Your task to perform on an android device: Go to ESPN.com Image 0: 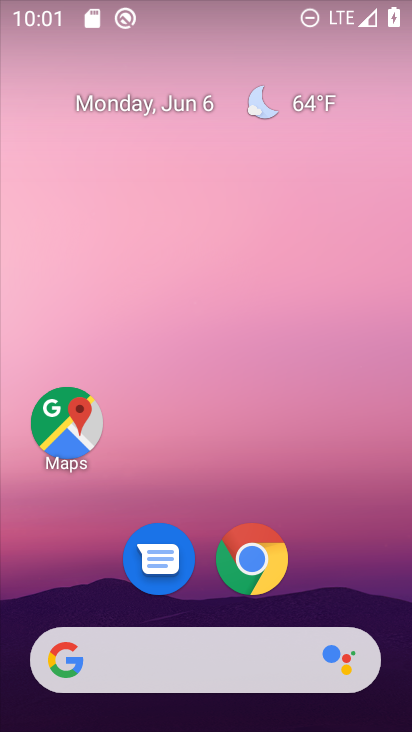
Step 0: click (258, 566)
Your task to perform on an android device: Go to ESPN.com Image 1: 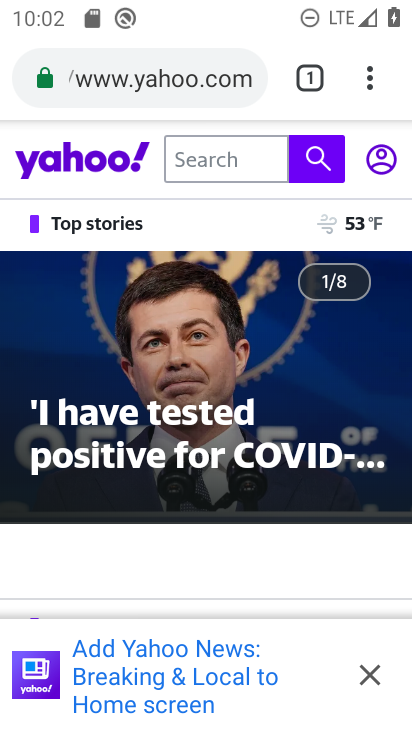
Step 1: click (369, 89)
Your task to perform on an android device: Go to ESPN.com Image 2: 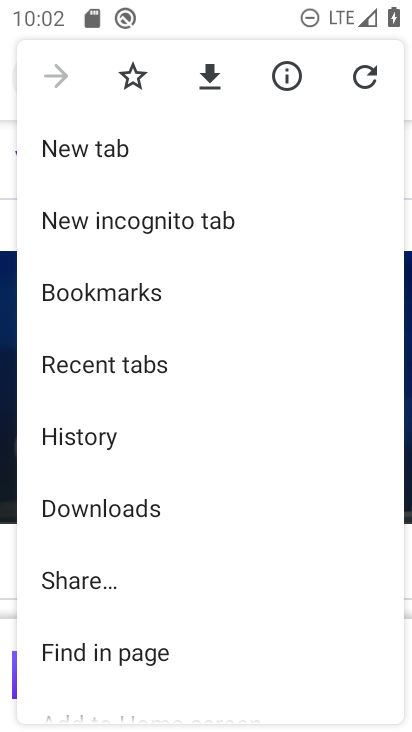
Step 2: click (85, 148)
Your task to perform on an android device: Go to ESPN.com Image 3: 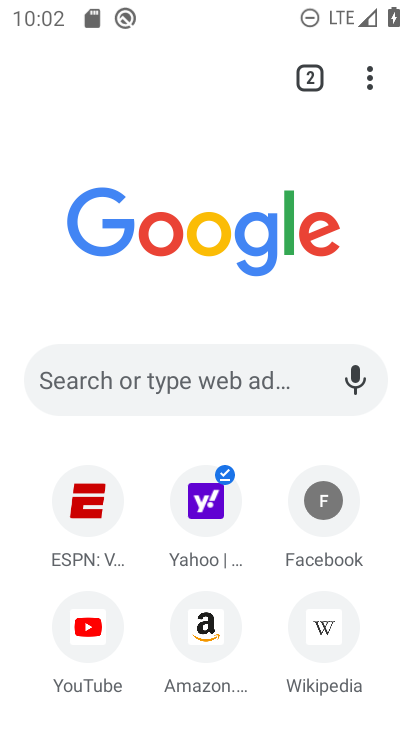
Step 3: click (77, 525)
Your task to perform on an android device: Go to ESPN.com Image 4: 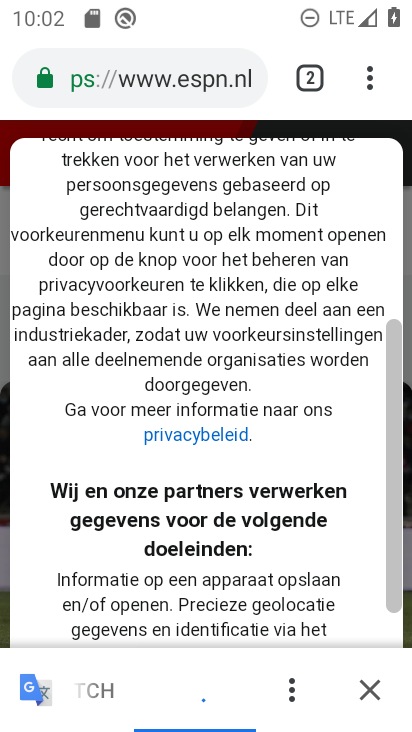
Step 4: drag from (342, 619) to (311, 274)
Your task to perform on an android device: Go to ESPN.com Image 5: 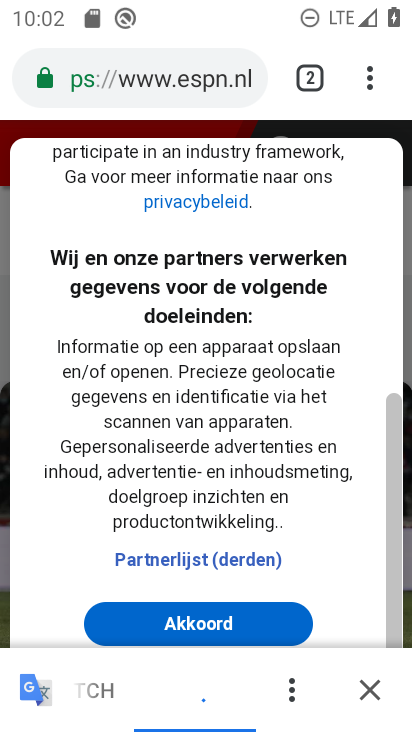
Step 5: click (197, 626)
Your task to perform on an android device: Go to ESPN.com Image 6: 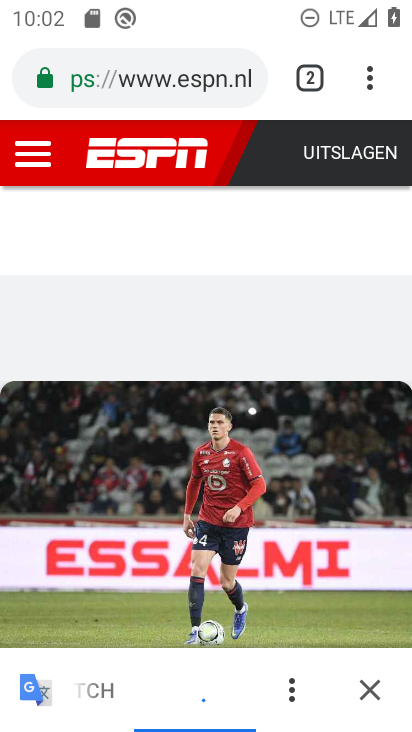
Step 6: task complete